Your task to perform on an android device: open a bookmark in the chrome app Image 0: 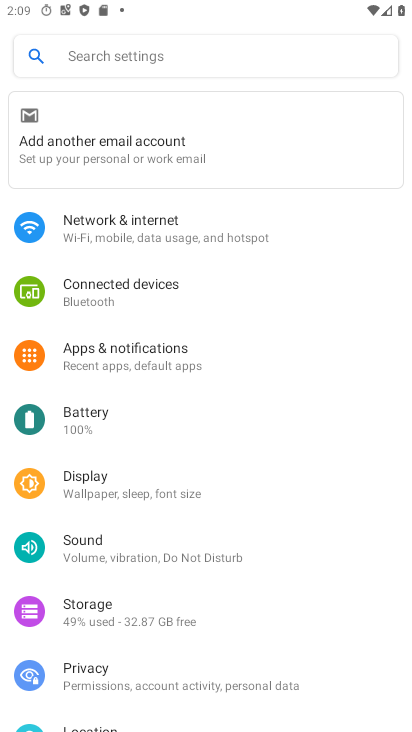
Step 0: press home button
Your task to perform on an android device: open a bookmark in the chrome app Image 1: 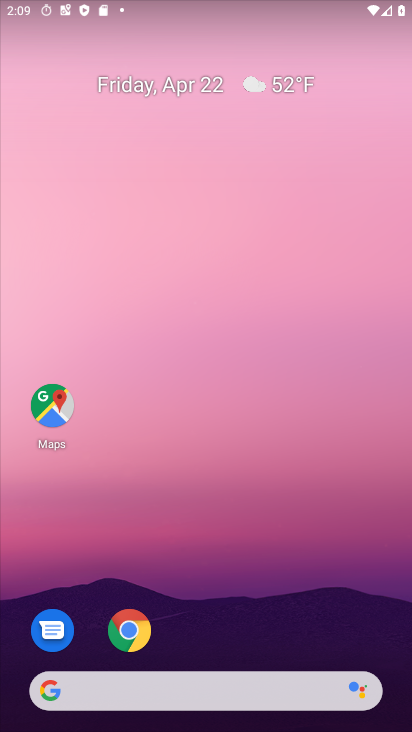
Step 1: click (124, 626)
Your task to perform on an android device: open a bookmark in the chrome app Image 2: 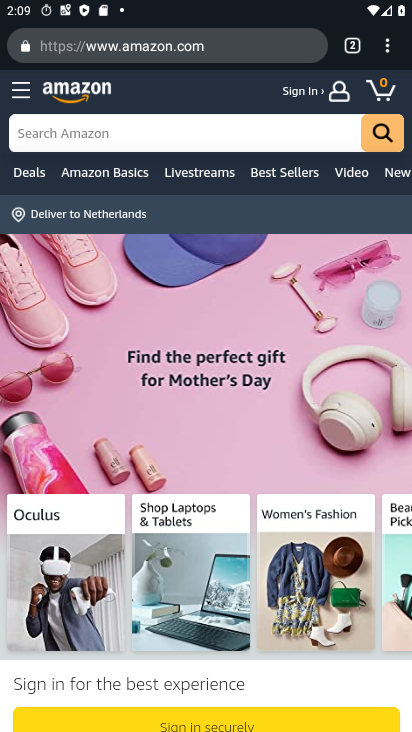
Step 2: click (386, 43)
Your task to perform on an android device: open a bookmark in the chrome app Image 3: 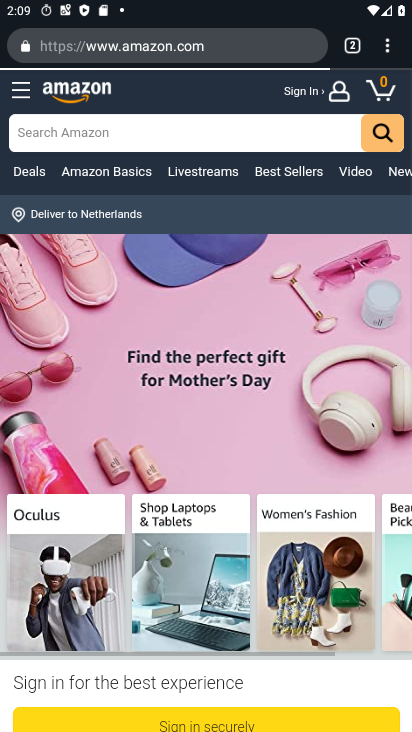
Step 3: click (386, 43)
Your task to perform on an android device: open a bookmark in the chrome app Image 4: 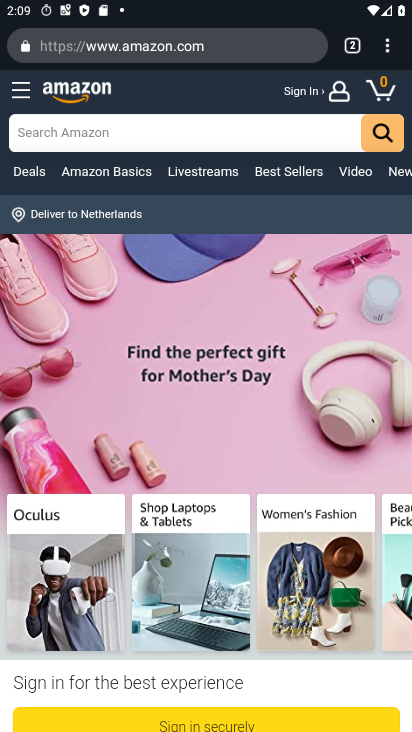
Step 4: click (386, 43)
Your task to perform on an android device: open a bookmark in the chrome app Image 5: 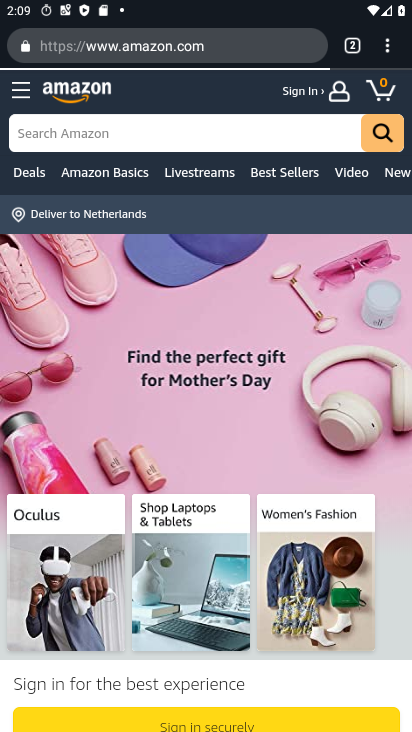
Step 5: click (386, 43)
Your task to perform on an android device: open a bookmark in the chrome app Image 6: 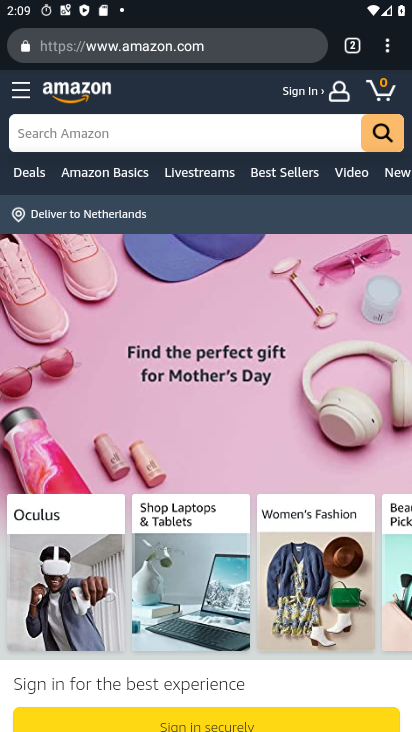
Step 6: click (386, 43)
Your task to perform on an android device: open a bookmark in the chrome app Image 7: 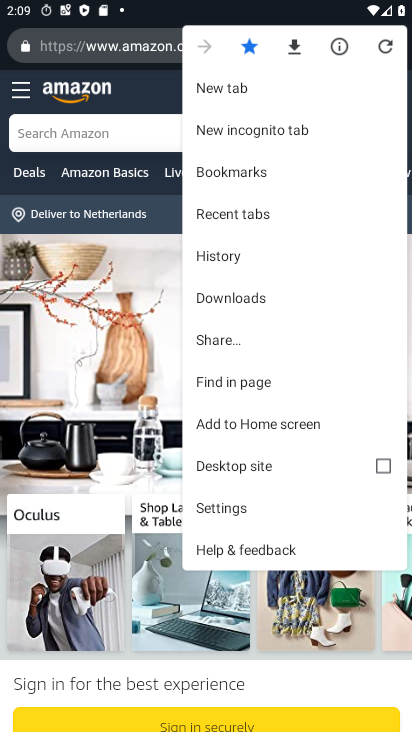
Step 7: click (230, 166)
Your task to perform on an android device: open a bookmark in the chrome app Image 8: 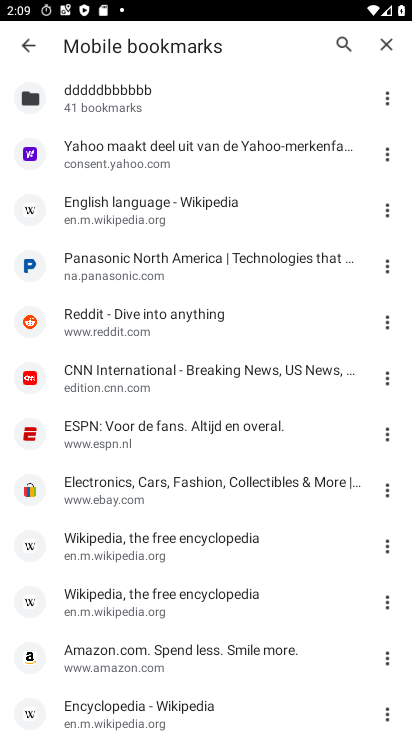
Step 8: click (105, 262)
Your task to perform on an android device: open a bookmark in the chrome app Image 9: 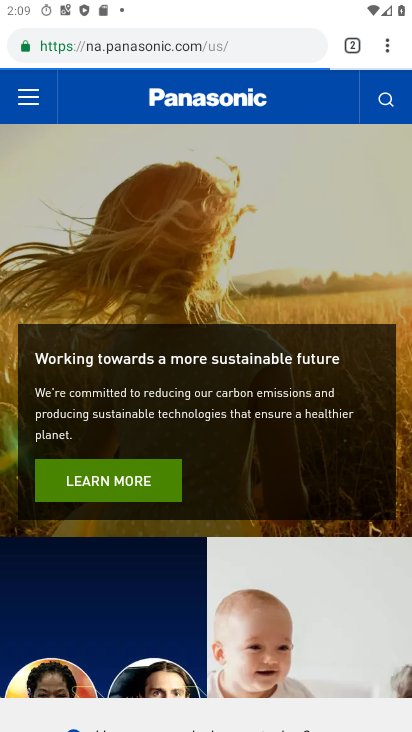
Step 9: task complete